Your task to perform on an android device: stop showing notifications on the lock screen Image 0: 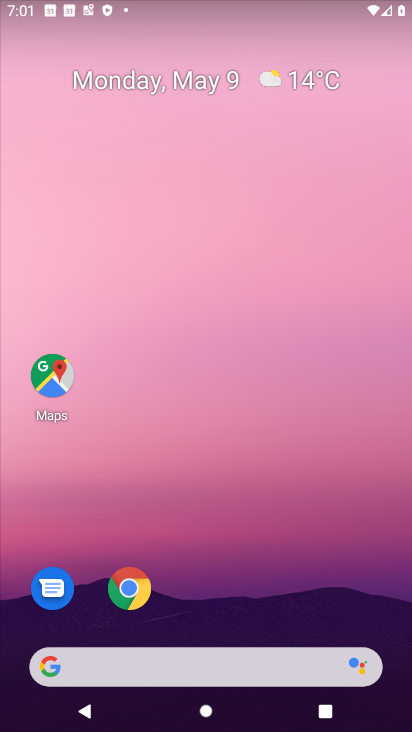
Step 0: drag from (354, 603) to (303, 29)
Your task to perform on an android device: stop showing notifications on the lock screen Image 1: 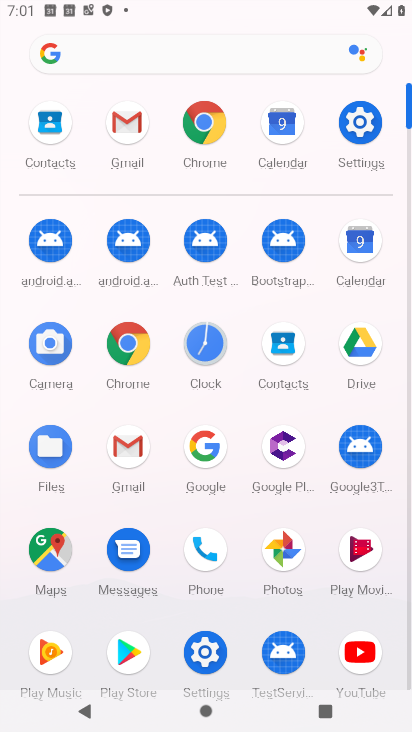
Step 1: click (364, 138)
Your task to perform on an android device: stop showing notifications on the lock screen Image 2: 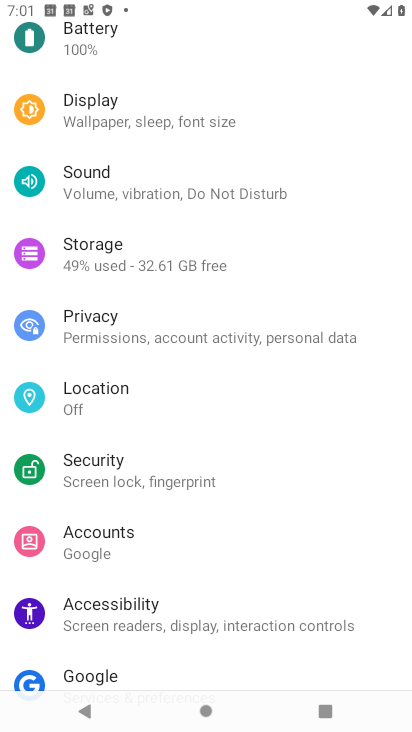
Step 2: drag from (182, 129) to (153, 612)
Your task to perform on an android device: stop showing notifications on the lock screen Image 3: 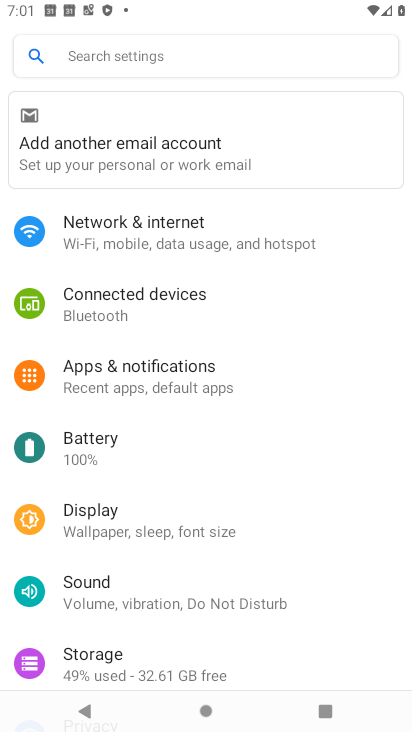
Step 3: click (189, 386)
Your task to perform on an android device: stop showing notifications on the lock screen Image 4: 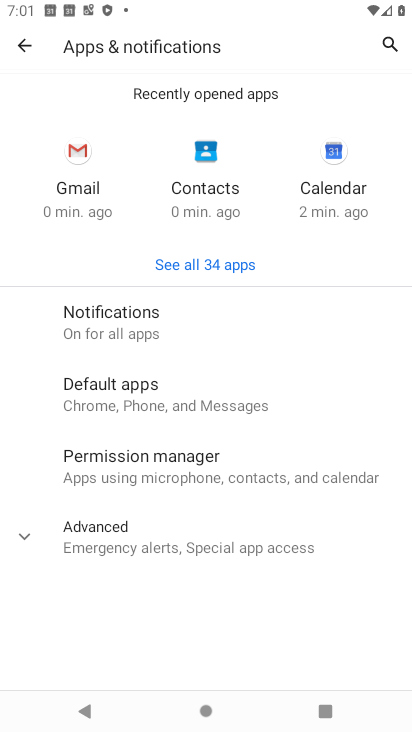
Step 4: click (171, 326)
Your task to perform on an android device: stop showing notifications on the lock screen Image 5: 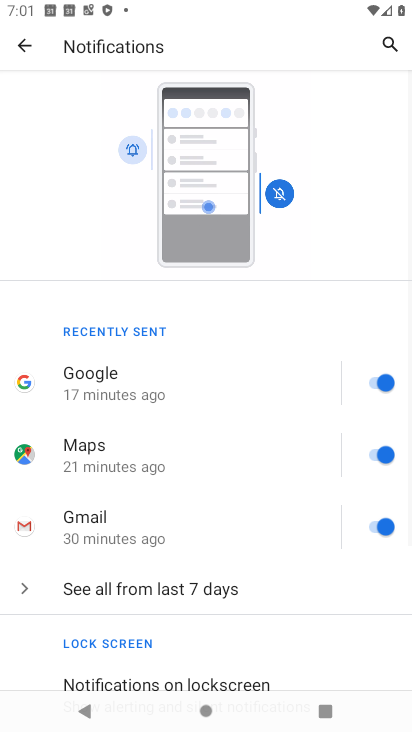
Step 5: click (210, 673)
Your task to perform on an android device: stop showing notifications on the lock screen Image 6: 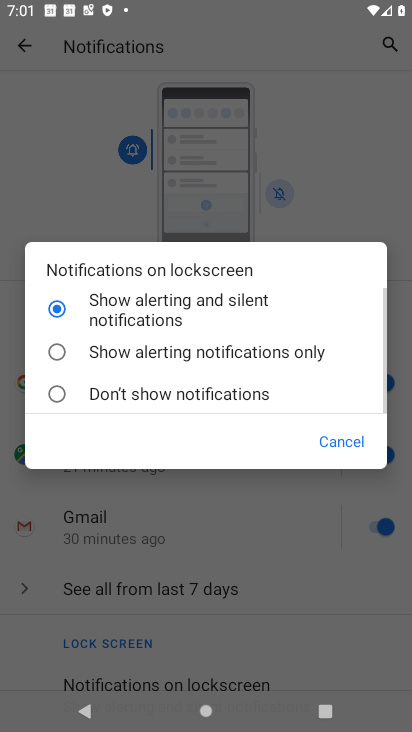
Step 6: click (61, 389)
Your task to perform on an android device: stop showing notifications on the lock screen Image 7: 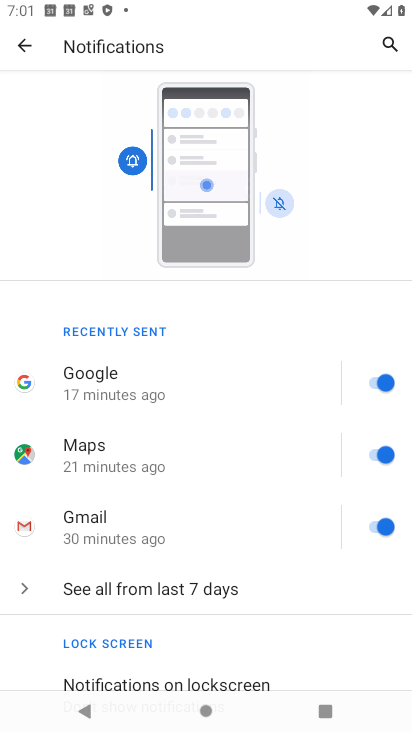
Step 7: task complete